Your task to perform on an android device: What's the weather today? Image 0: 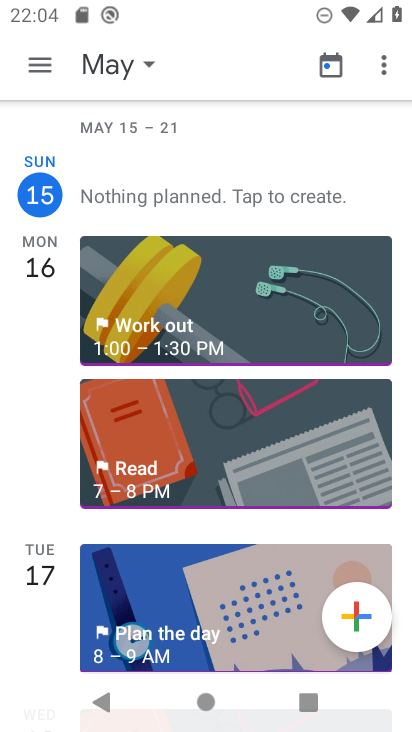
Step 0: press home button
Your task to perform on an android device: What's the weather today? Image 1: 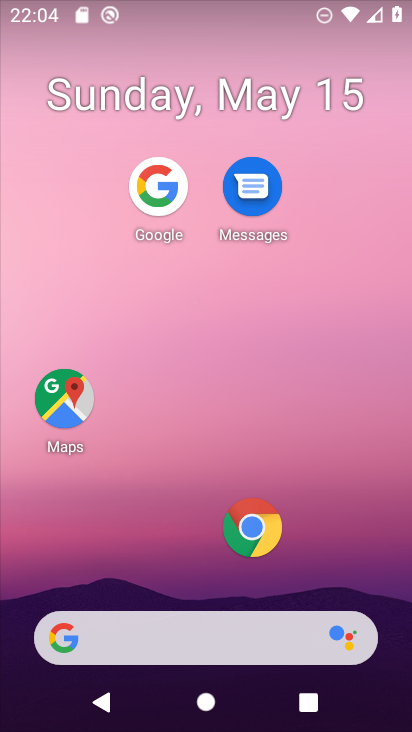
Step 1: click (69, 642)
Your task to perform on an android device: What's the weather today? Image 2: 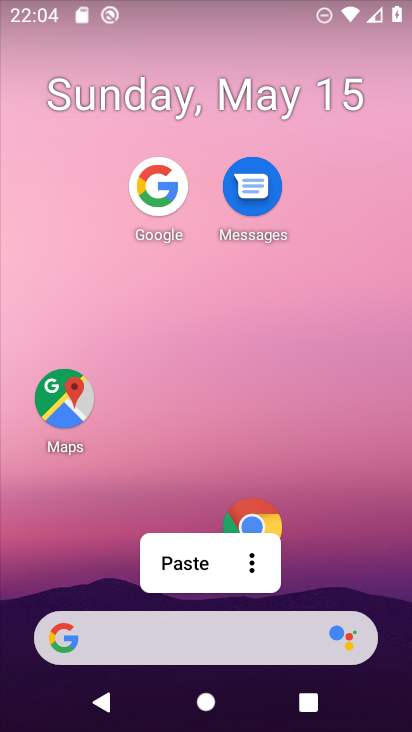
Step 2: click (69, 642)
Your task to perform on an android device: What's the weather today? Image 3: 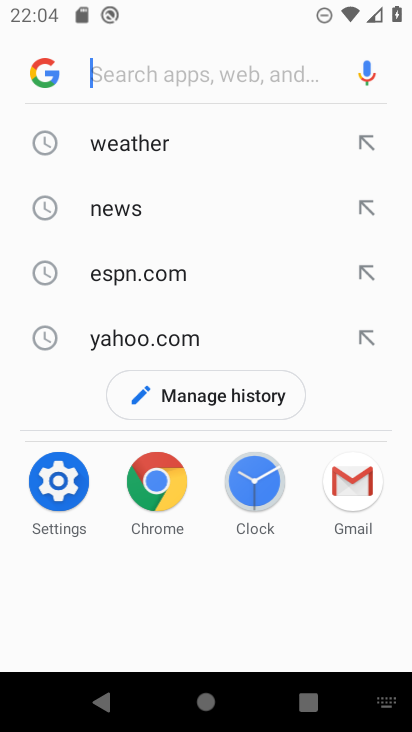
Step 3: click (137, 147)
Your task to perform on an android device: What's the weather today? Image 4: 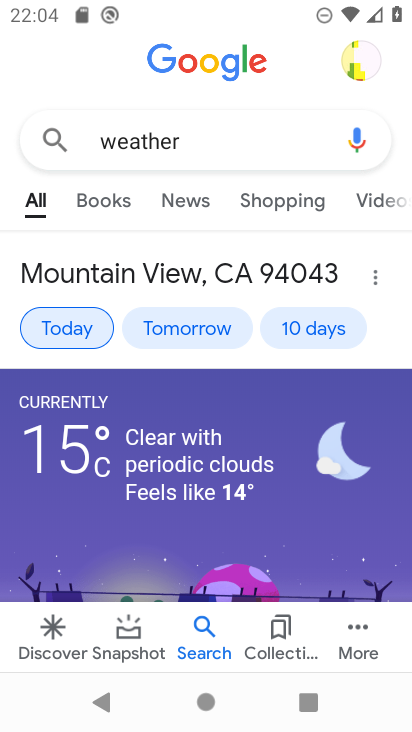
Step 4: task complete